Your task to perform on an android device: Open battery settings Image 0: 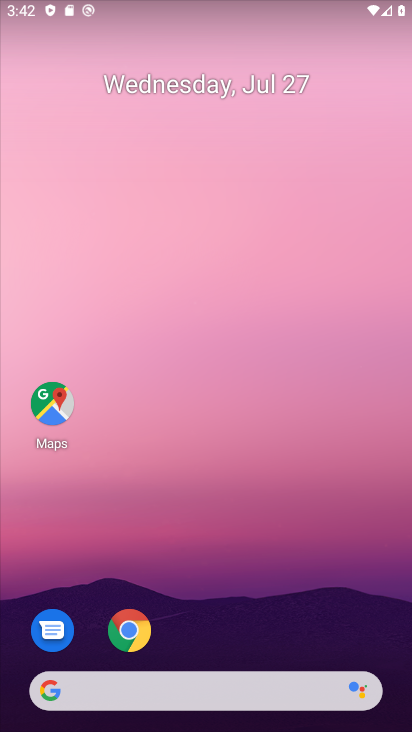
Step 0: drag from (223, 649) to (306, 23)
Your task to perform on an android device: Open battery settings Image 1: 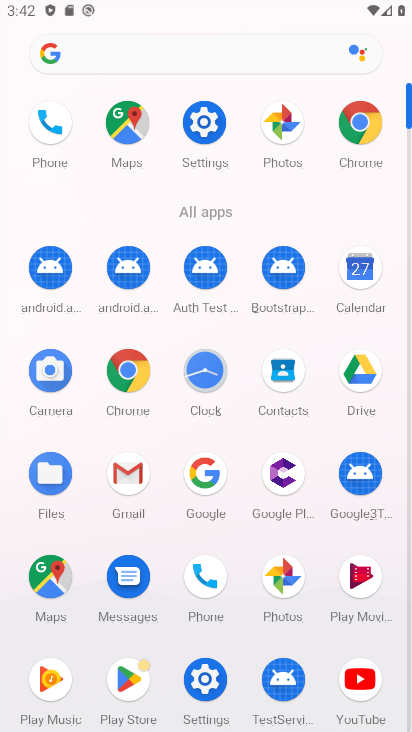
Step 1: click (199, 118)
Your task to perform on an android device: Open battery settings Image 2: 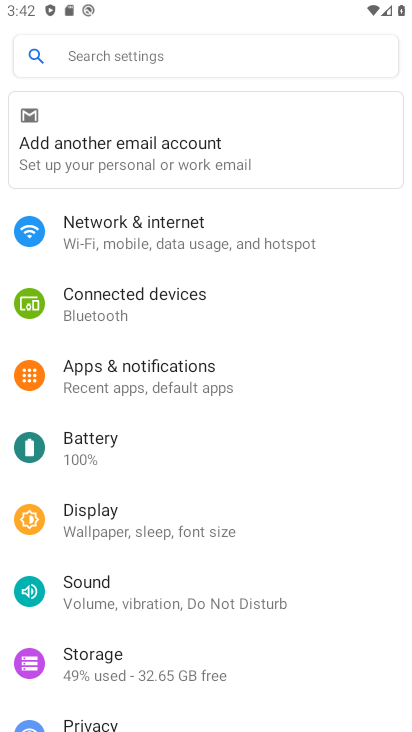
Step 2: click (125, 446)
Your task to perform on an android device: Open battery settings Image 3: 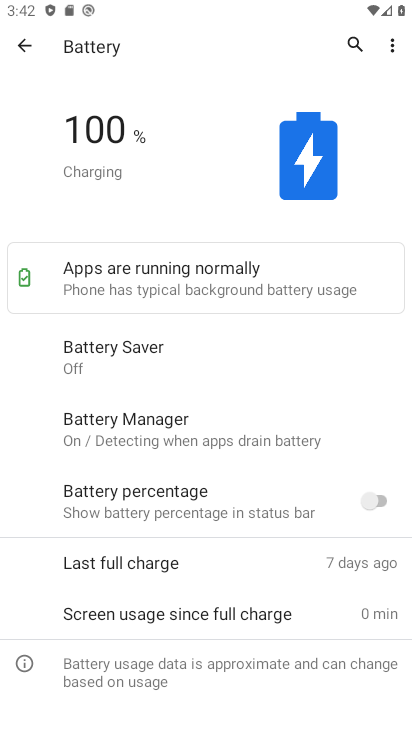
Step 3: task complete